Your task to perform on an android device: Open my contact list Image 0: 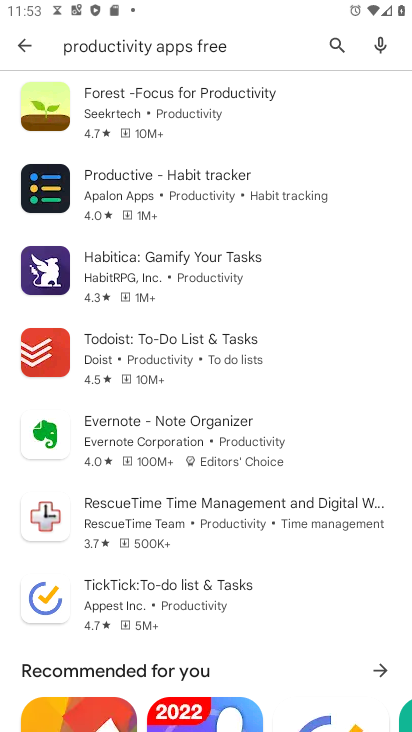
Step 0: press home button
Your task to perform on an android device: Open my contact list Image 1: 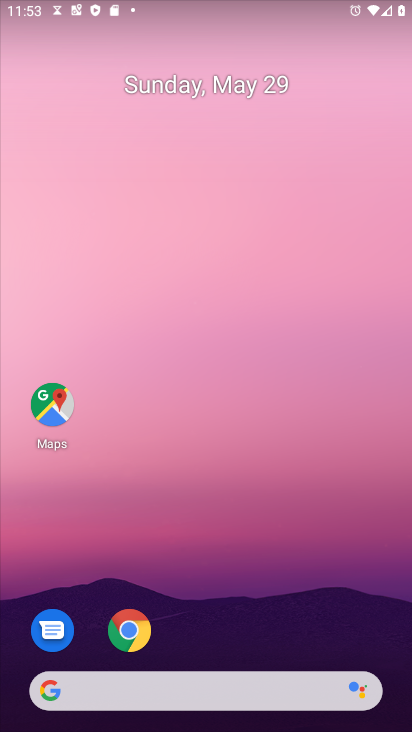
Step 1: drag from (209, 543) to (218, 141)
Your task to perform on an android device: Open my contact list Image 2: 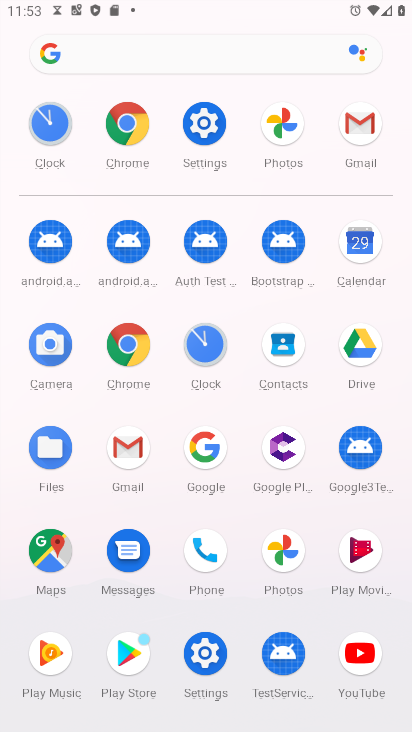
Step 2: click (273, 334)
Your task to perform on an android device: Open my contact list Image 3: 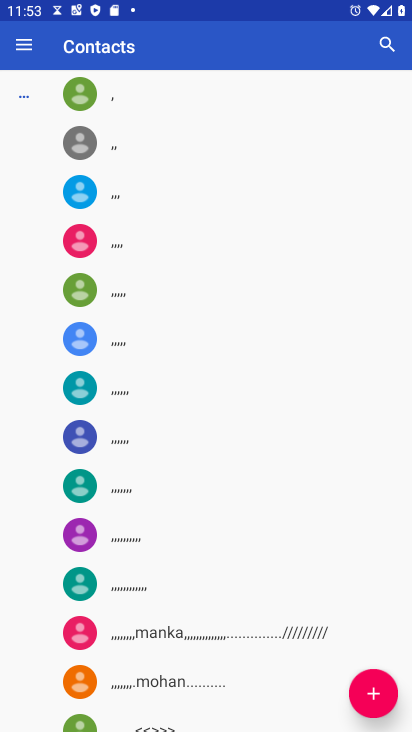
Step 3: task complete